Your task to perform on an android device: star an email in the gmail app Image 0: 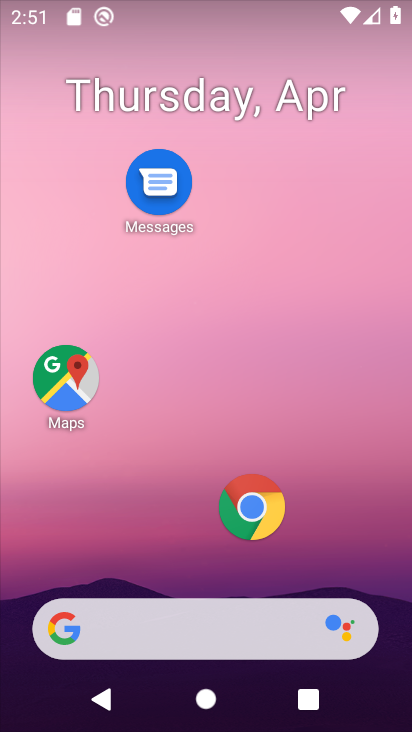
Step 0: click (379, 304)
Your task to perform on an android device: star an email in the gmail app Image 1: 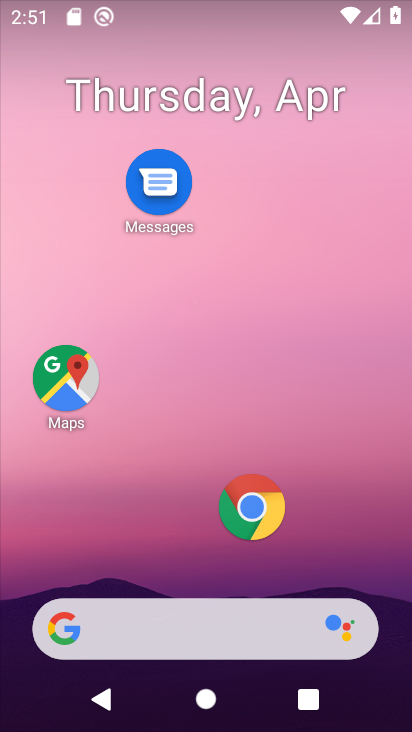
Step 1: drag from (191, 568) to (272, 82)
Your task to perform on an android device: star an email in the gmail app Image 2: 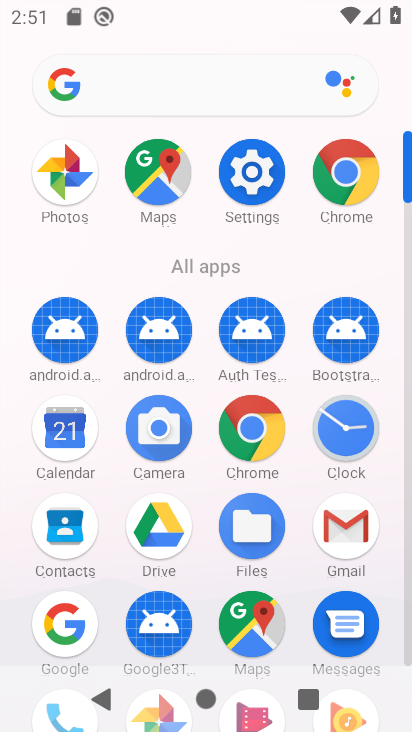
Step 2: click (342, 519)
Your task to perform on an android device: star an email in the gmail app Image 3: 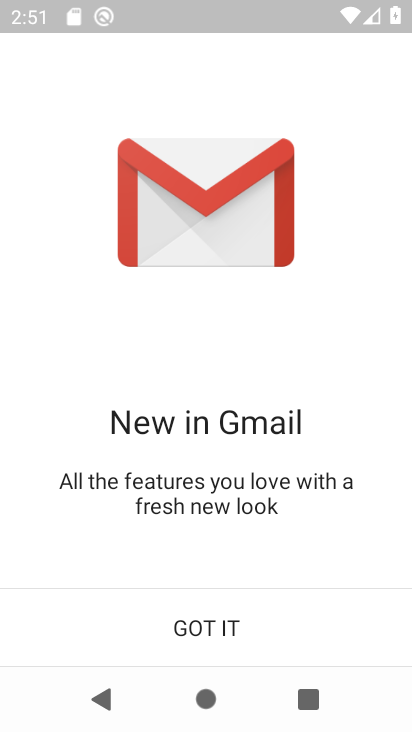
Step 3: click (255, 626)
Your task to perform on an android device: star an email in the gmail app Image 4: 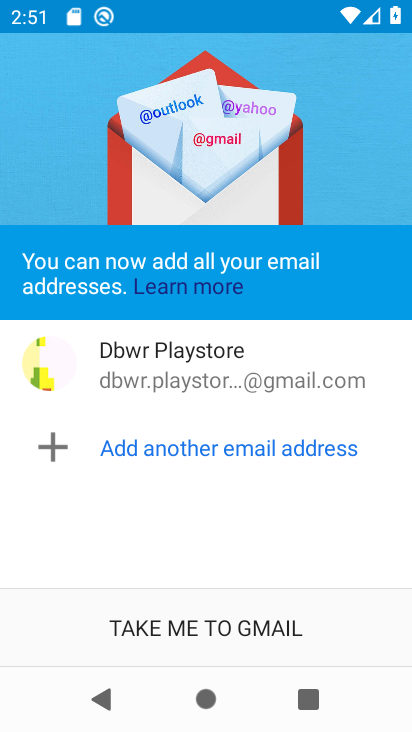
Step 4: click (254, 625)
Your task to perform on an android device: star an email in the gmail app Image 5: 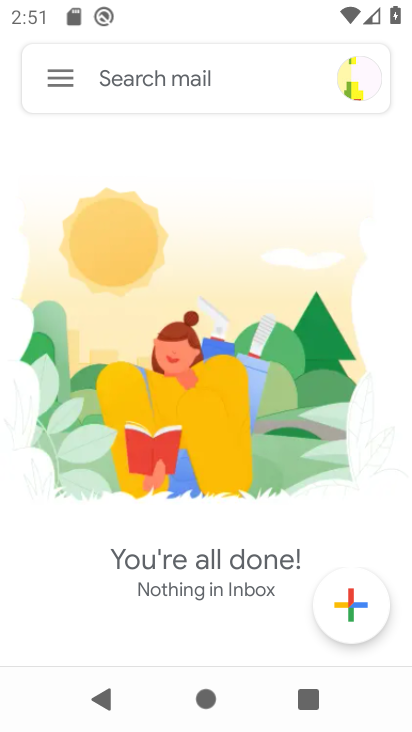
Step 5: click (53, 84)
Your task to perform on an android device: star an email in the gmail app Image 6: 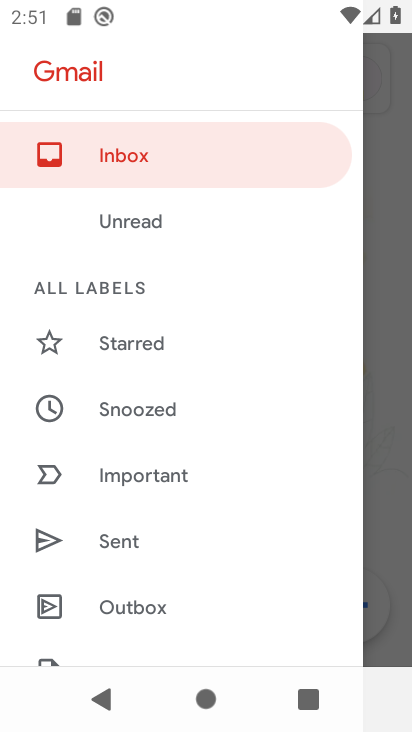
Step 6: drag from (134, 553) to (211, 128)
Your task to perform on an android device: star an email in the gmail app Image 7: 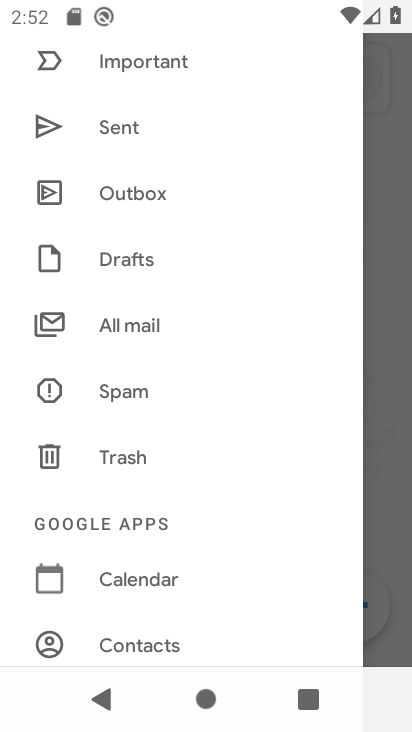
Step 7: click (131, 339)
Your task to perform on an android device: star an email in the gmail app Image 8: 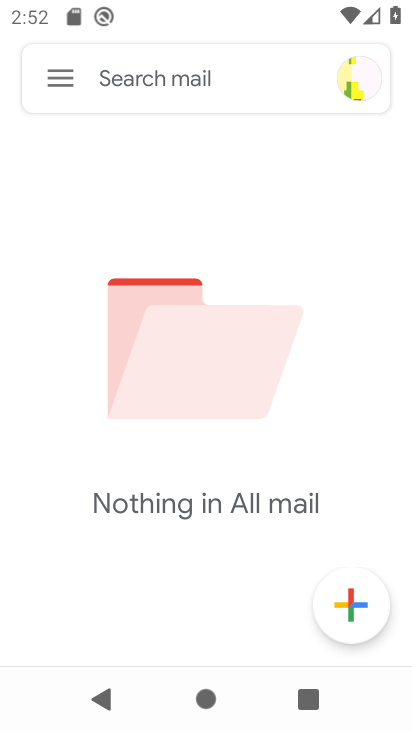
Step 8: task complete